Your task to perform on an android device: Go to Google maps Image 0: 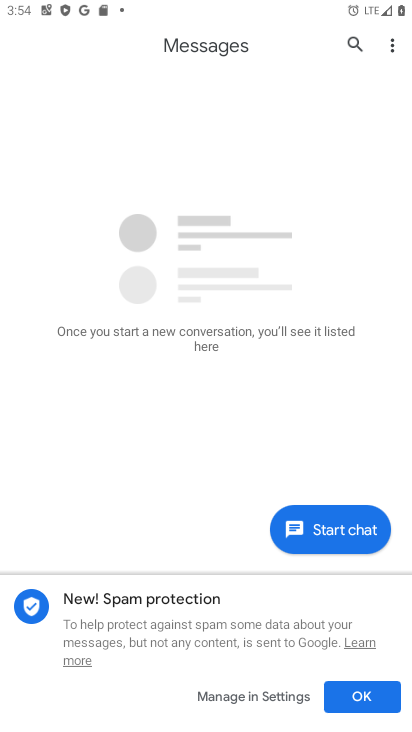
Step 0: press home button
Your task to perform on an android device: Go to Google maps Image 1: 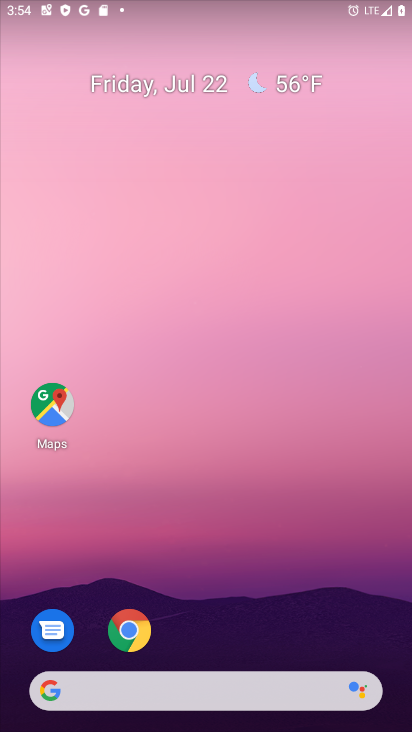
Step 1: click (64, 404)
Your task to perform on an android device: Go to Google maps Image 2: 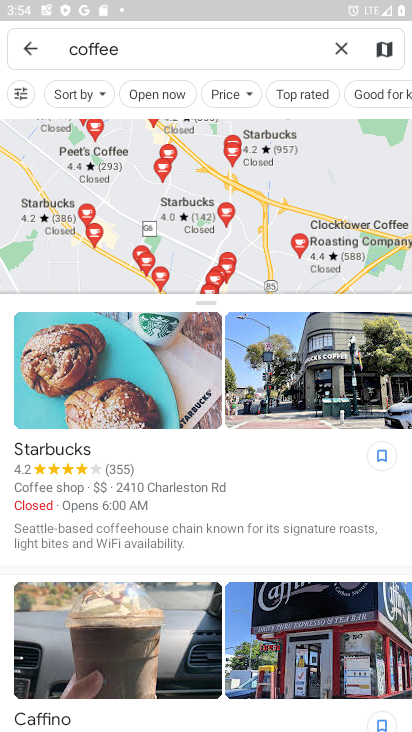
Step 2: task complete